Your task to perform on an android device: Go to network settings Image 0: 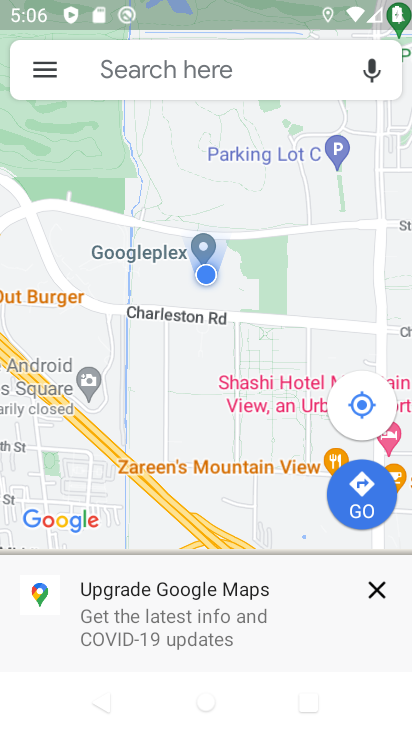
Step 0: press home button
Your task to perform on an android device: Go to network settings Image 1: 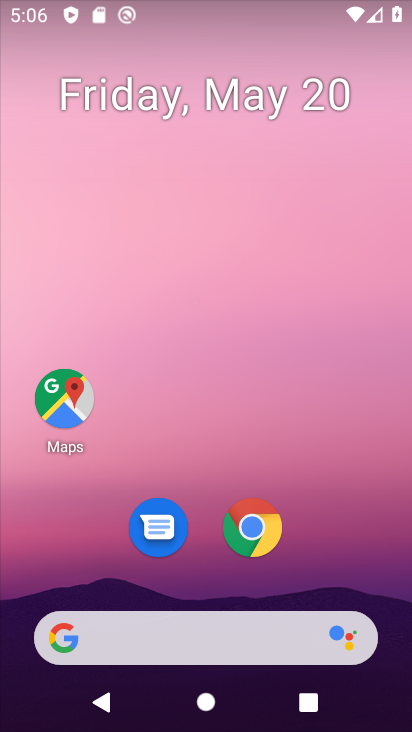
Step 1: drag from (272, 650) to (241, 83)
Your task to perform on an android device: Go to network settings Image 2: 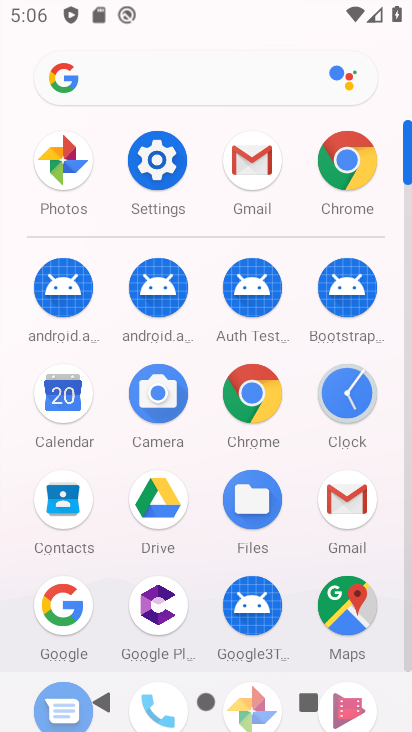
Step 2: click (169, 164)
Your task to perform on an android device: Go to network settings Image 3: 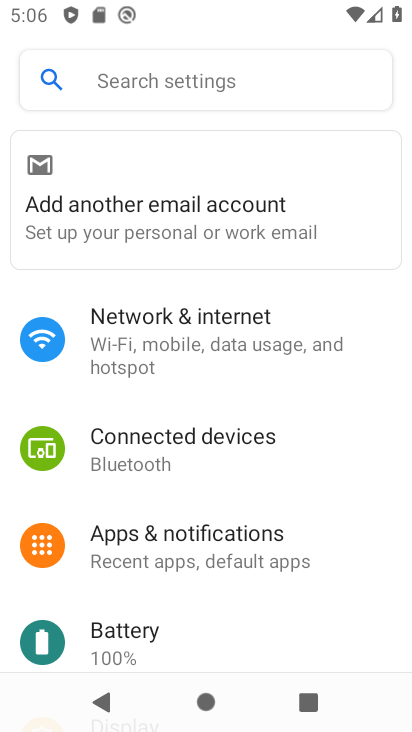
Step 3: click (127, 355)
Your task to perform on an android device: Go to network settings Image 4: 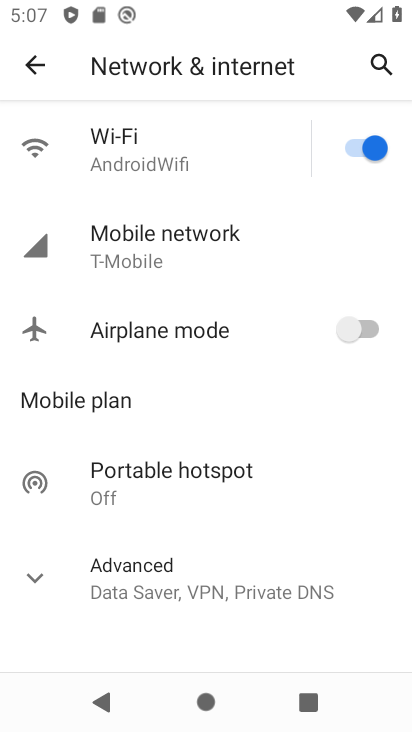
Step 4: task complete